Your task to perform on an android device: turn pop-ups on in chrome Image 0: 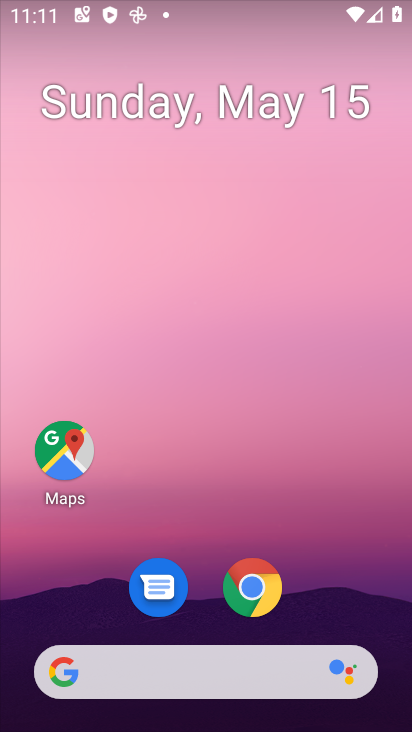
Step 0: drag from (356, 616) to (280, 184)
Your task to perform on an android device: turn pop-ups on in chrome Image 1: 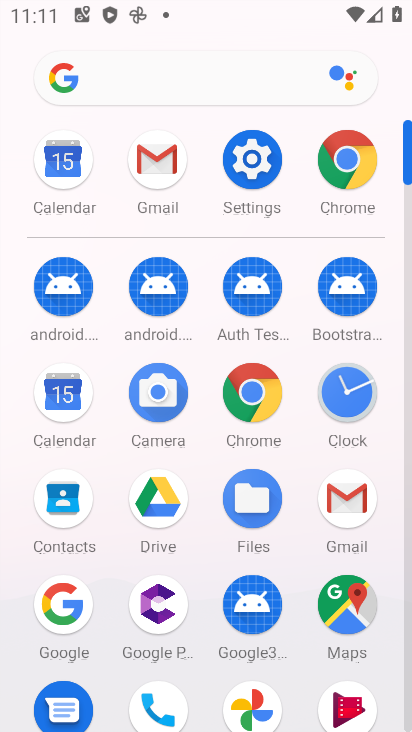
Step 1: click (264, 393)
Your task to perform on an android device: turn pop-ups on in chrome Image 2: 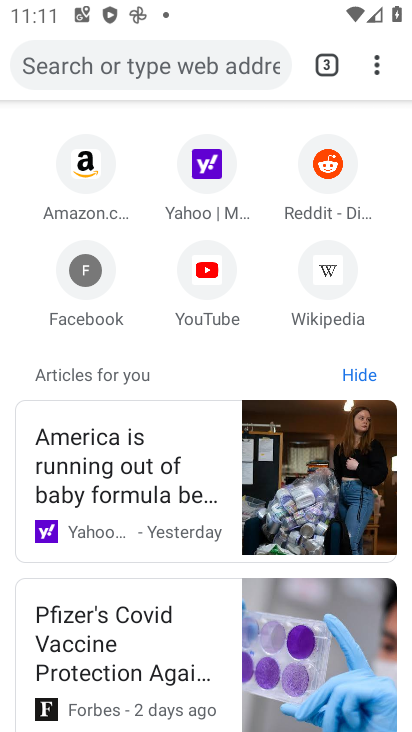
Step 2: click (377, 57)
Your task to perform on an android device: turn pop-ups on in chrome Image 3: 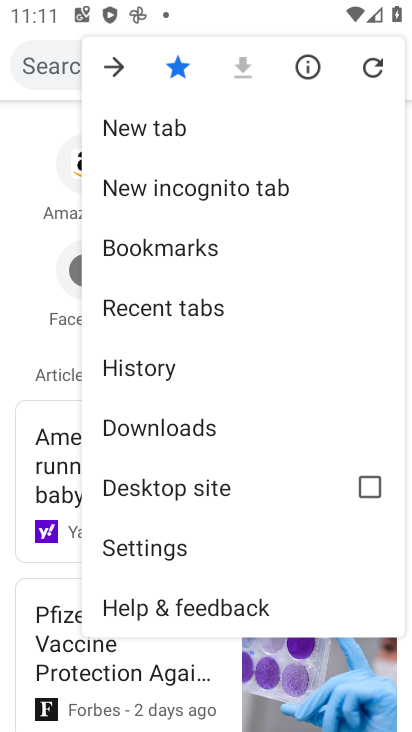
Step 3: click (213, 561)
Your task to perform on an android device: turn pop-ups on in chrome Image 4: 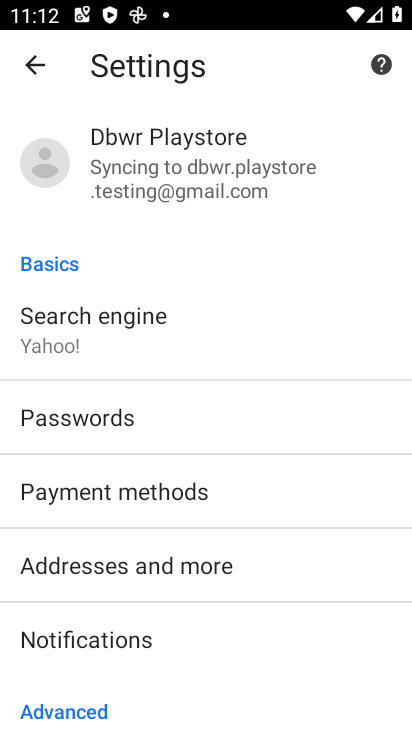
Step 4: drag from (151, 640) to (220, 152)
Your task to perform on an android device: turn pop-ups on in chrome Image 5: 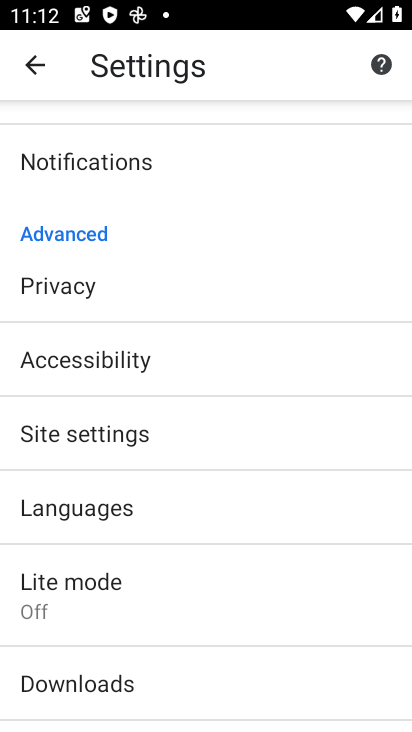
Step 5: click (169, 445)
Your task to perform on an android device: turn pop-ups on in chrome Image 6: 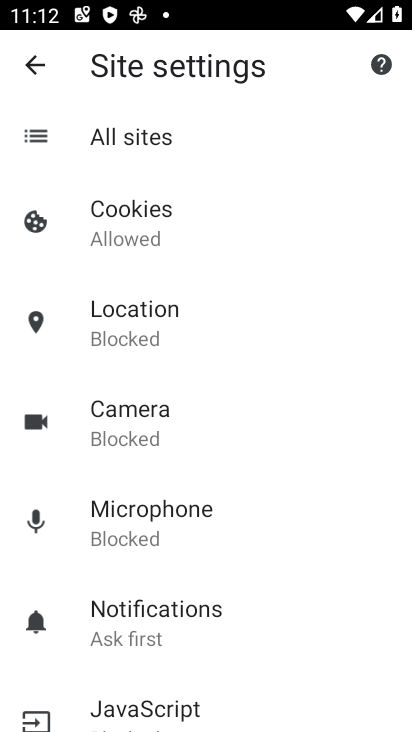
Step 6: drag from (147, 631) to (186, 331)
Your task to perform on an android device: turn pop-ups on in chrome Image 7: 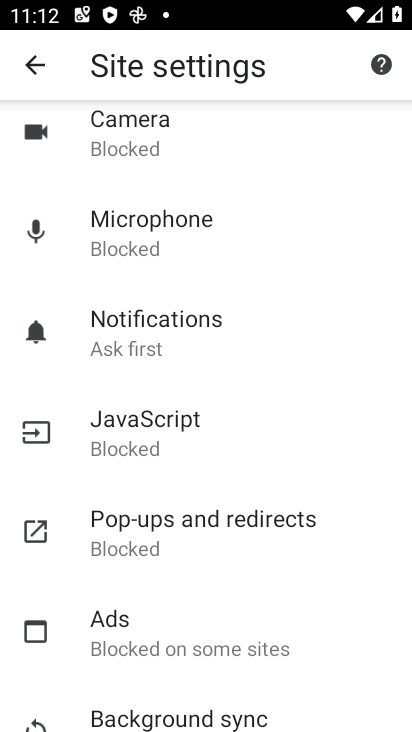
Step 7: click (244, 544)
Your task to perform on an android device: turn pop-ups on in chrome Image 8: 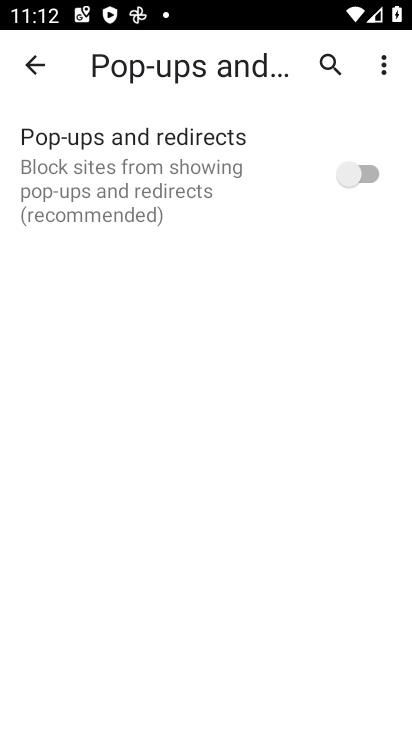
Step 8: click (265, 200)
Your task to perform on an android device: turn pop-ups on in chrome Image 9: 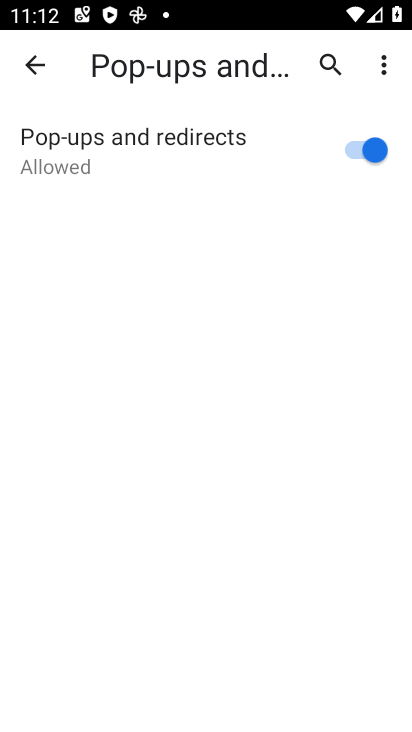
Step 9: task complete